Your task to perform on an android device: toggle priority inbox in the gmail app Image 0: 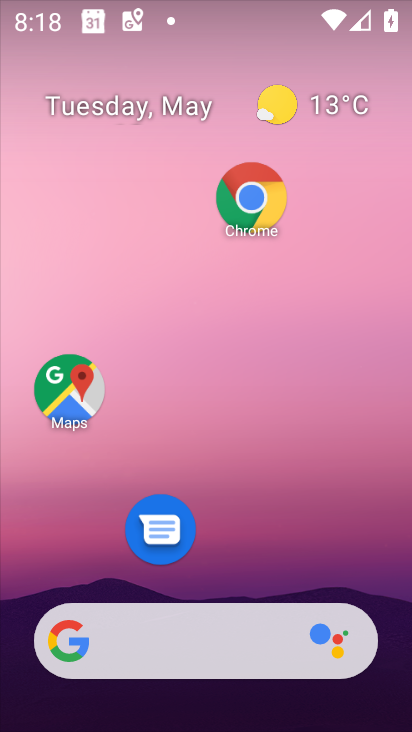
Step 0: drag from (320, 529) to (261, 14)
Your task to perform on an android device: toggle priority inbox in the gmail app Image 1: 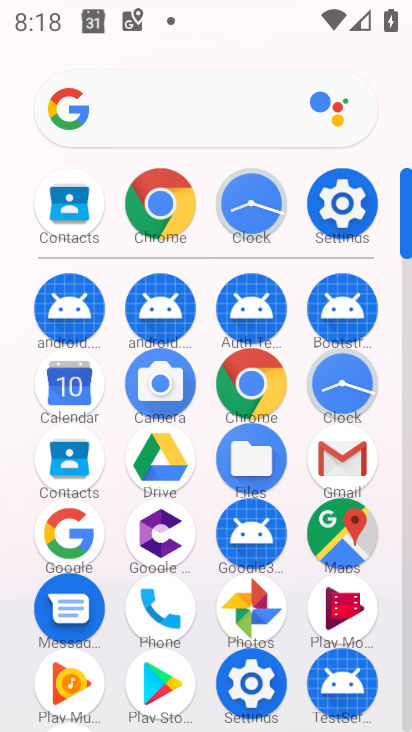
Step 1: click (321, 456)
Your task to perform on an android device: toggle priority inbox in the gmail app Image 2: 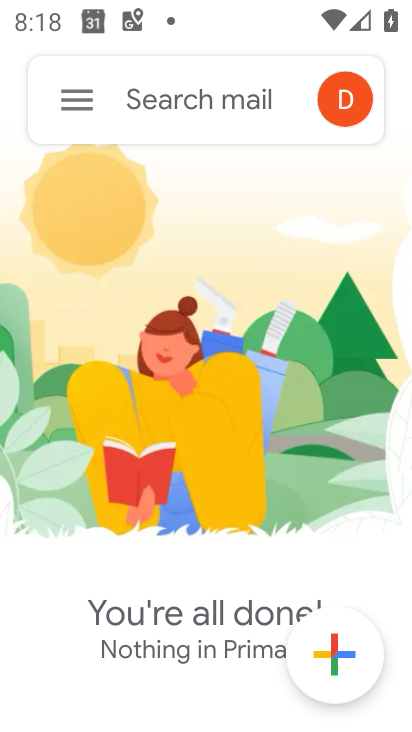
Step 2: click (71, 119)
Your task to perform on an android device: toggle priority inbox in the gmail app Image 3: 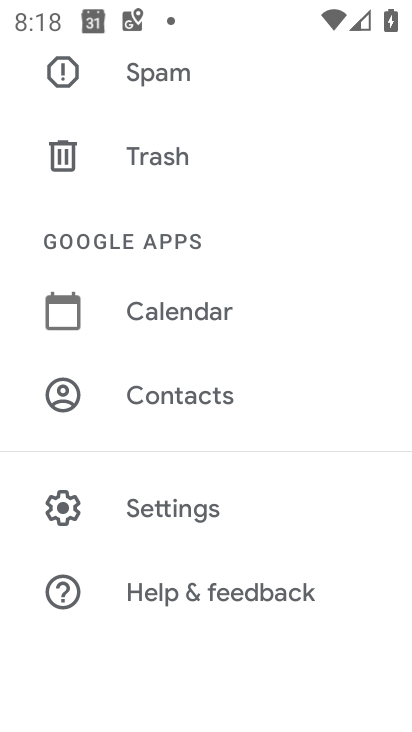
Step 3: click (92, 502)
Your task to perform on an android device: toggle priority inbox in the gmail app Image 4: 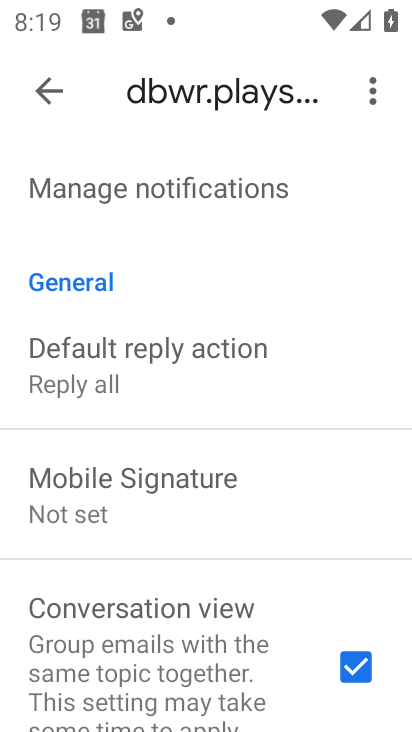
Step 4: drag from (175, 586) to (308, 132)
Your task to perform on an android device: toggle priority inbox in the gmail app Image 5: 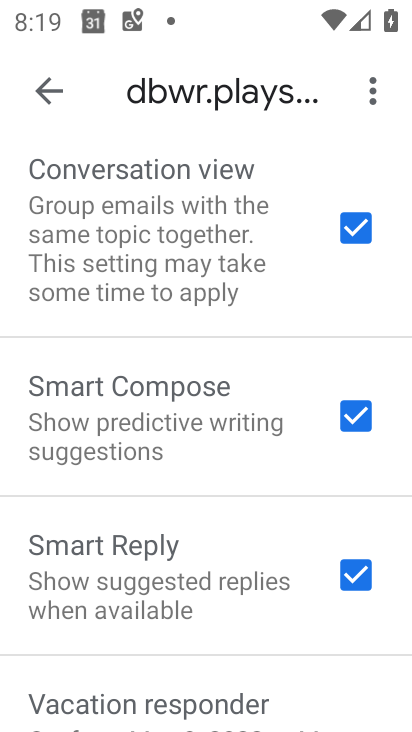
Step 5: drag from (236, 218) to (100, 722)
Your task to perform on an android device: toggle priority inbox in the gmail app Image 6: 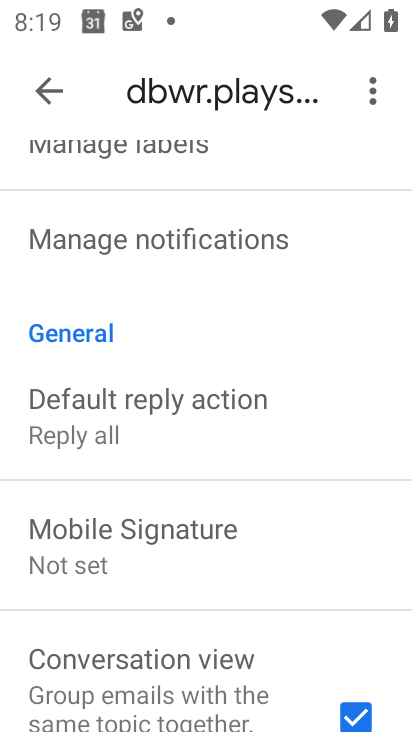
Step 6: drag from (211, 292) to (85, 710)
Your task to perform on an android device: toggle priority inbox in the gmail app Image 7: 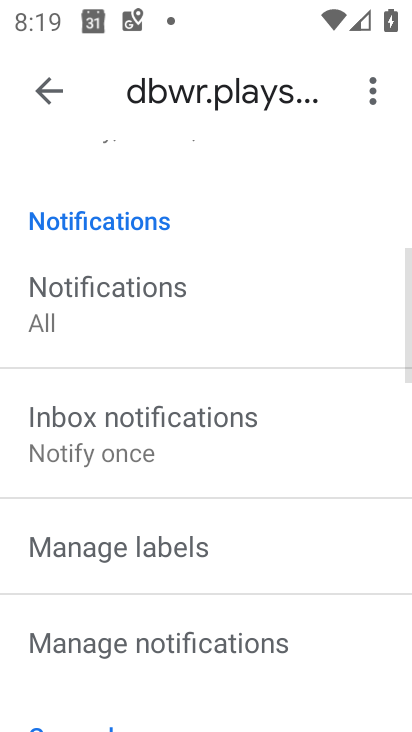
Step 7: drag from (203, 288) to (190, 605)
Your task to perform on an android device: toggle priority inbox in the gmail app Image 8: 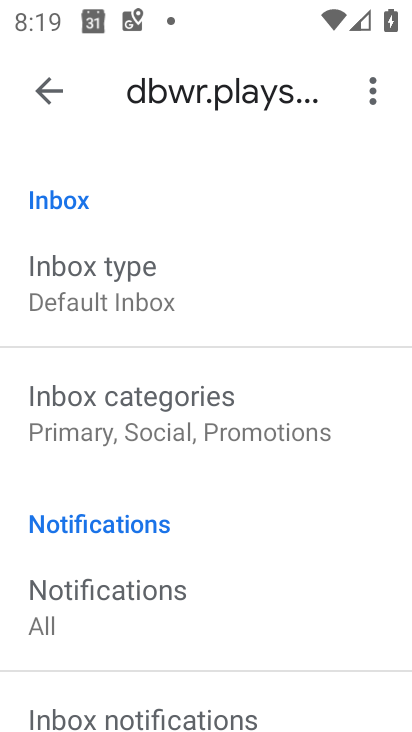
Step 8: click (237, 309)
Your task to perform on an android device: toggle priority inbox in the gmail app Image 9: 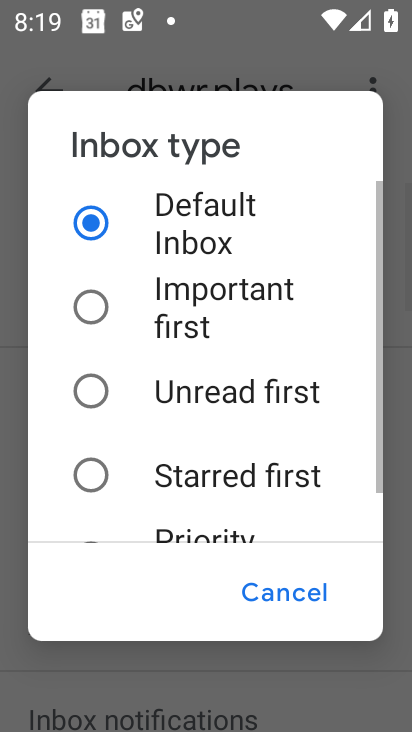
Step 9: click (237, 528)
Your task to perform on an android device: toggle priority inbox in the gmail app Image 10: 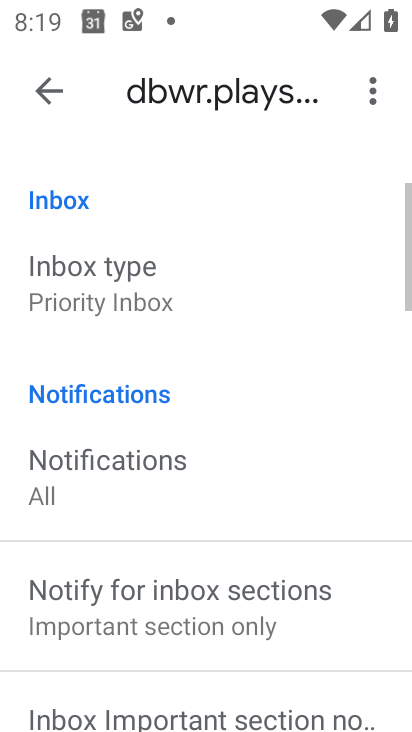
Step 10: task complete